Your task to perform on an android device: change the clock display to digital Image 0: 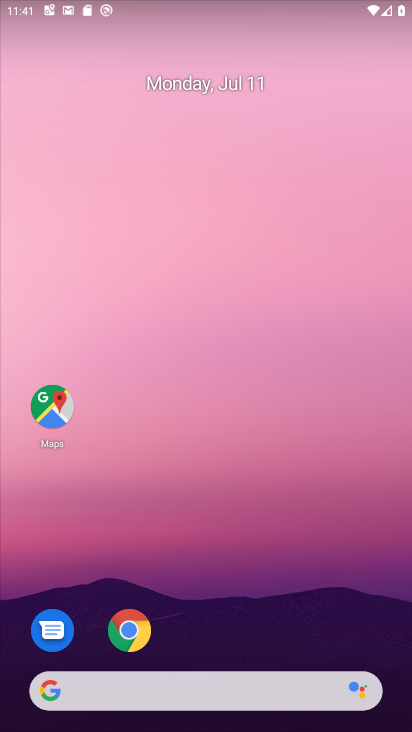
Step 0: drag from (266, 654) to (281, 94)
Your task to perform on an android device: change the clock display to digital Image 1: 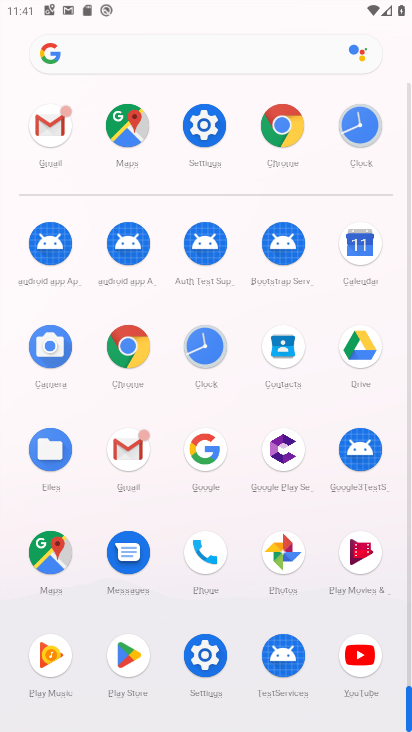
Step 1: click (201, 139)
Your task to perform on an android device: change the clock display to digital Image 2: 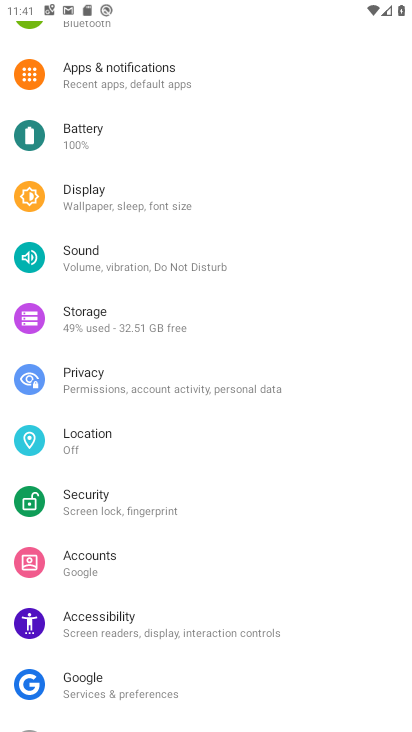
Step 2: press home button
Your task to perform on an android device: change the clock display to digital Image 3: 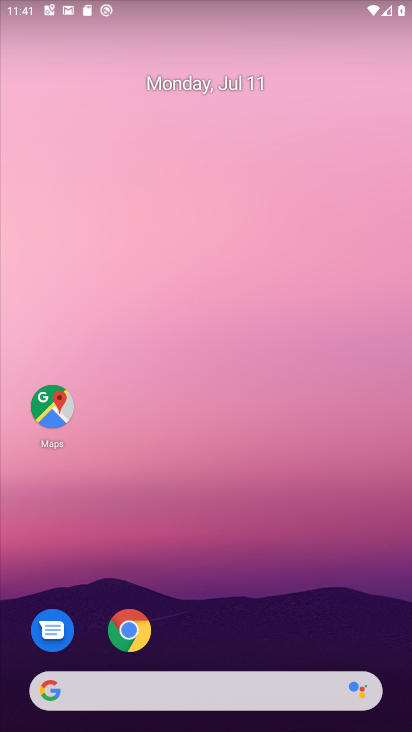
Step 3: drag from (231, 624) to (330, 25)
Your task to perform on an android device: change the clock display to digital Image 4: 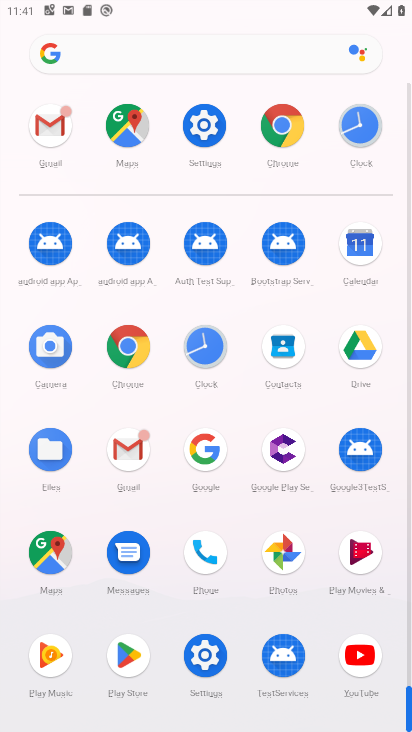
Step 4: click (203, 360)
Your task to perform on an android device: change the clock display to digital Image 5: 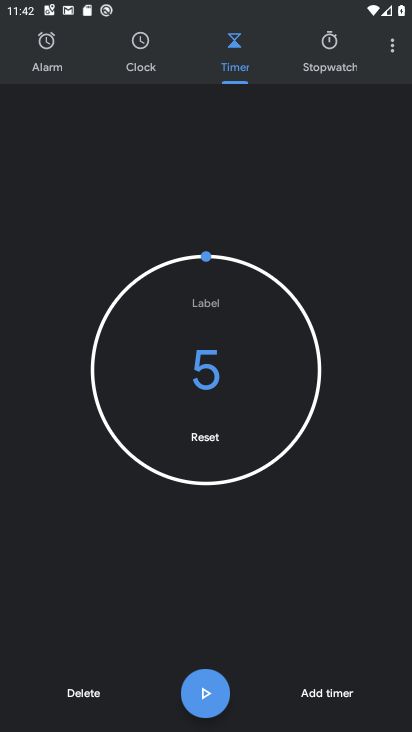
Step 5: click (387, 53)
Your task to perform on an android device: change the clock display to digital Image 6: 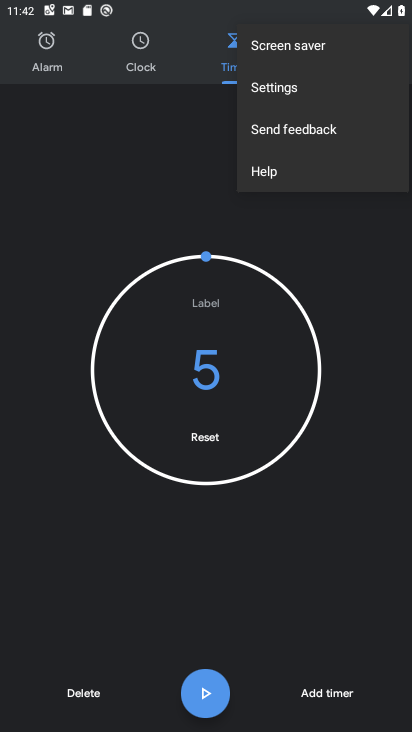
Step 6: click (273, 88)
Your task to perform on an android device: change the clock display to digital Image 7: 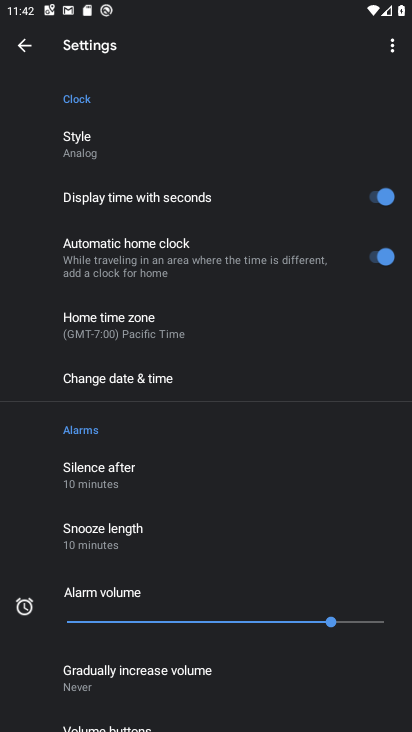
Step 7: click (107, 144)
Your task to perform on an android device: change the clock display to digital Image 8: 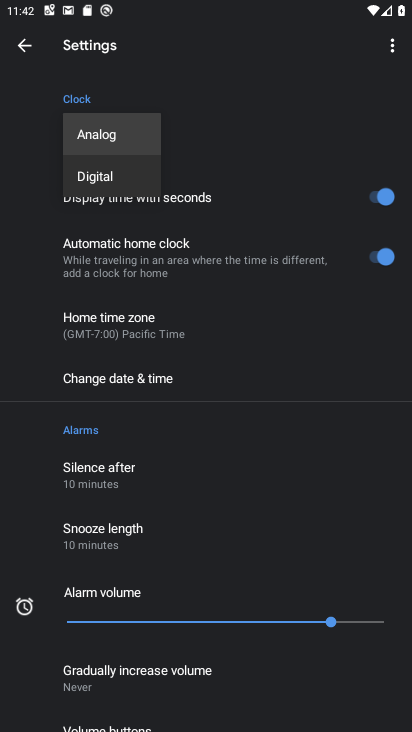
Step 8: click (114, 178)
Your task to perform on an android device: change the clock display to digital Image 9: 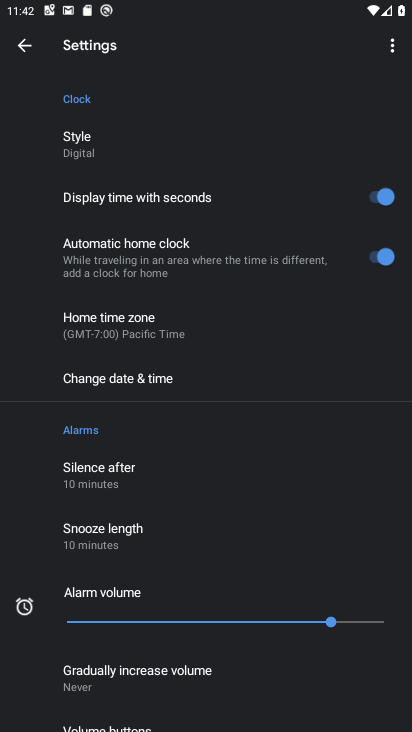
Step 9: task complete